Your task to perform on an android device: Search for the best rated book on Goodreads. Image 0: 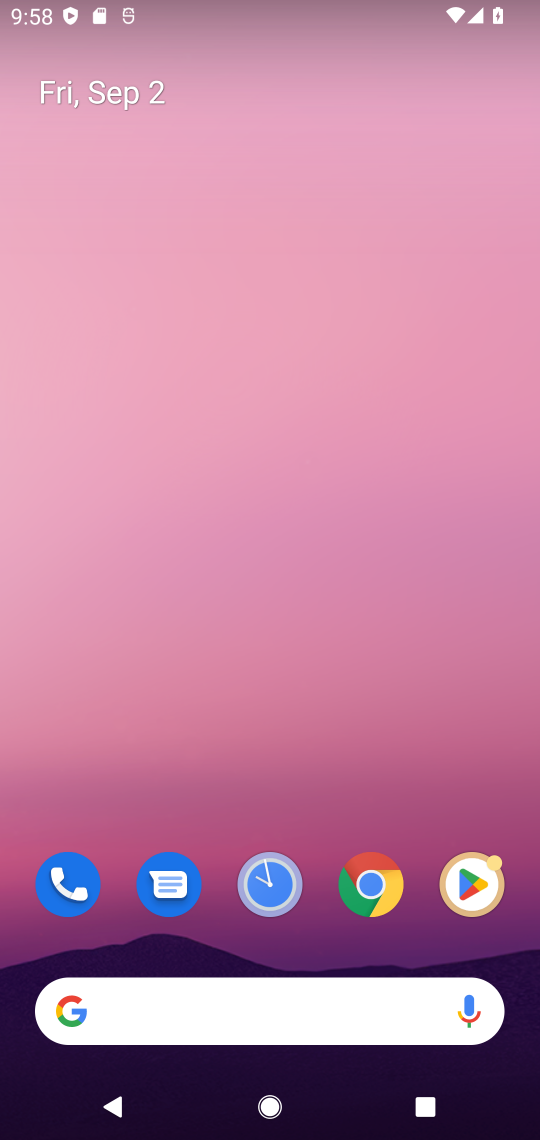
Step 0: task complete